Your task to perform on an android device: Searchfor good French restaurants Image 0: 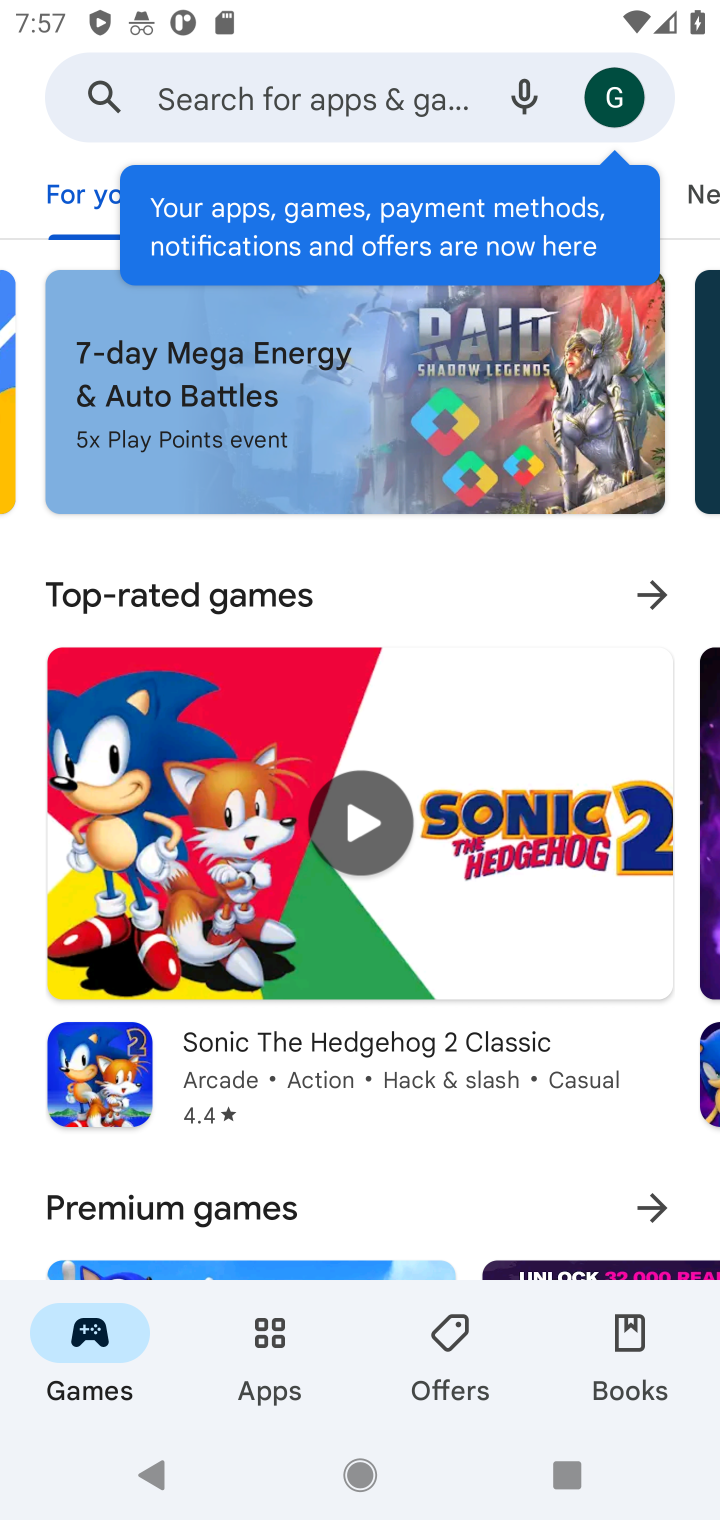
Step 0: press home button
Your task to perform on an android device: Searchfor good French restaurants Image 1: 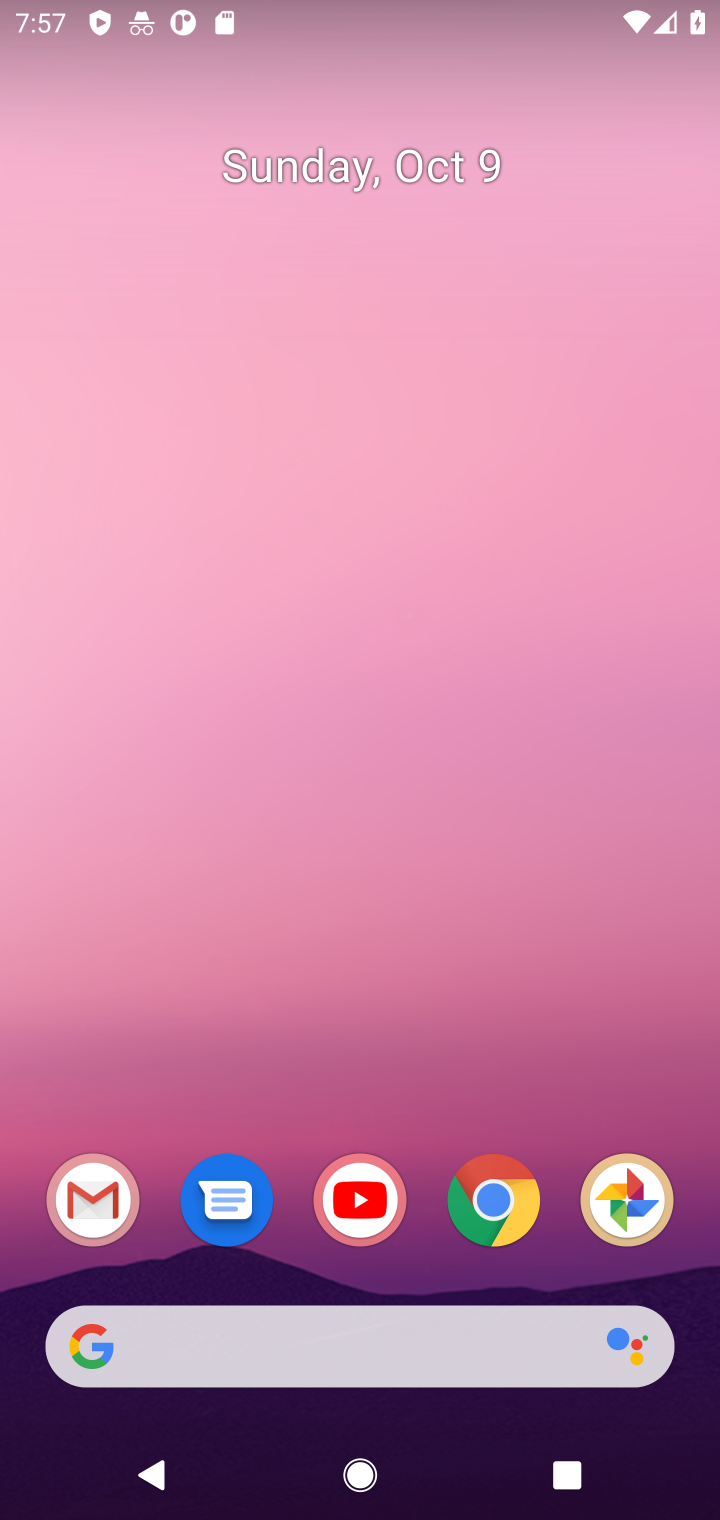
Step 1: click (508, 1200)
Your task to perform on an android device: Searchfor good French restaurants Image 2: 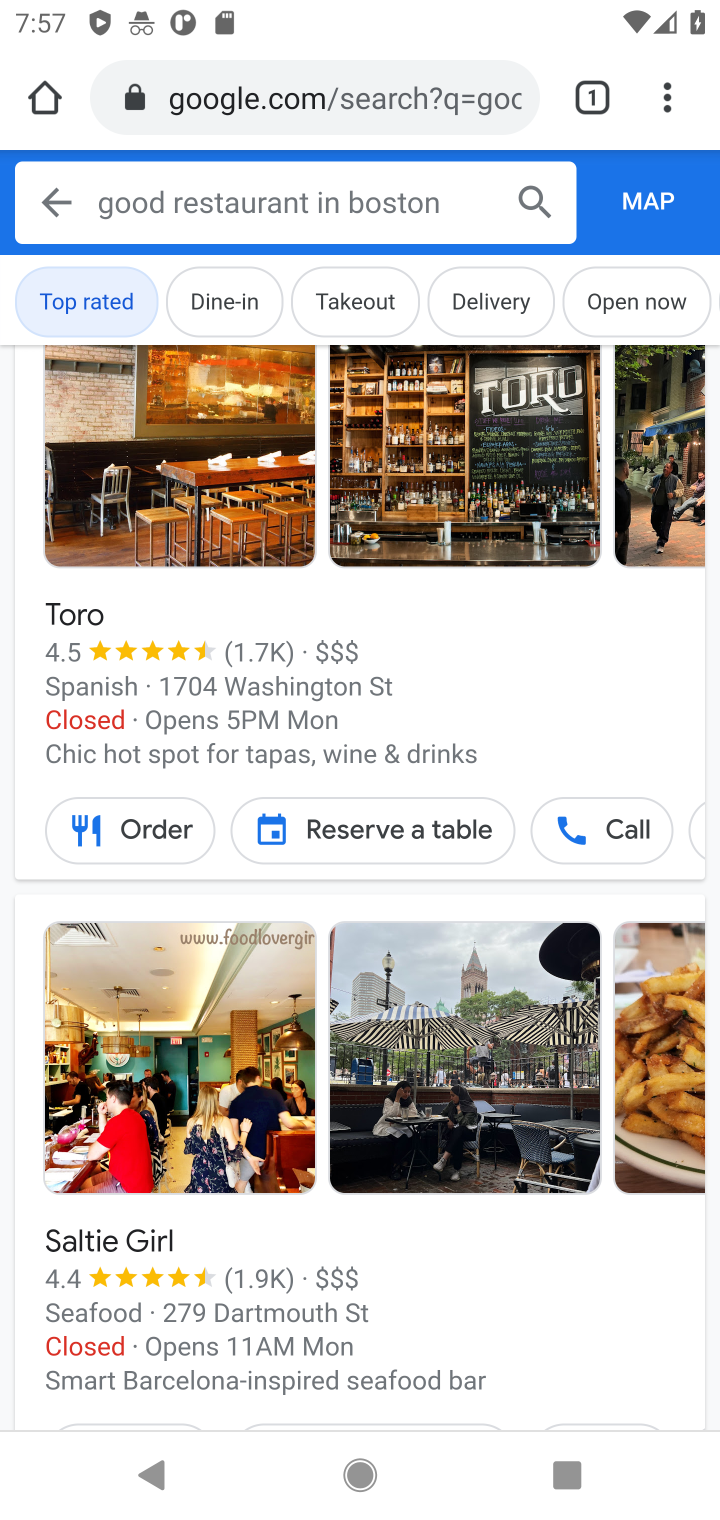
Step 2: drag from (666, 986) to (613, 528)
Your task to perform on an android device: Searchfor good French restaurants Image 3: 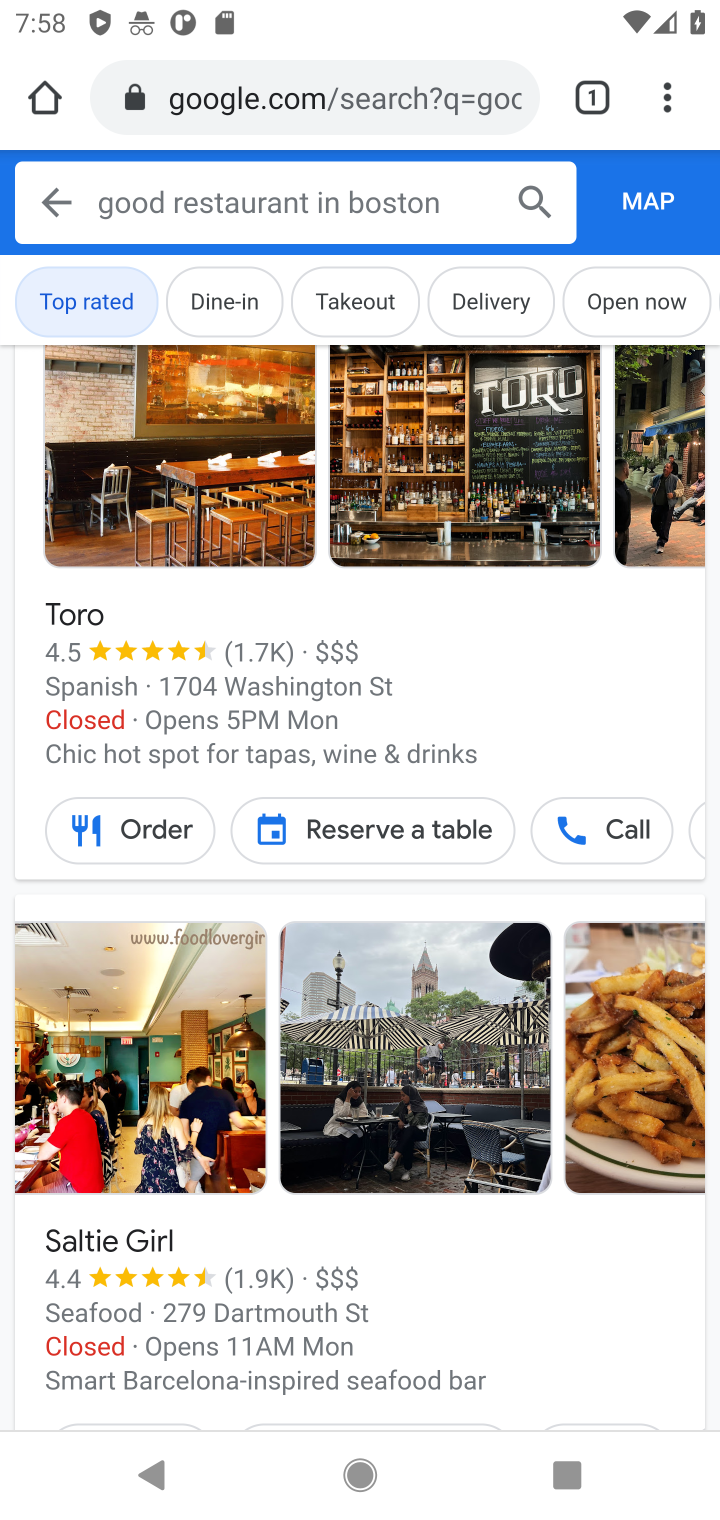
Step 3: click (288, 101)
Your task to perform on an android device: Searchfor good French restaurants Image 4: 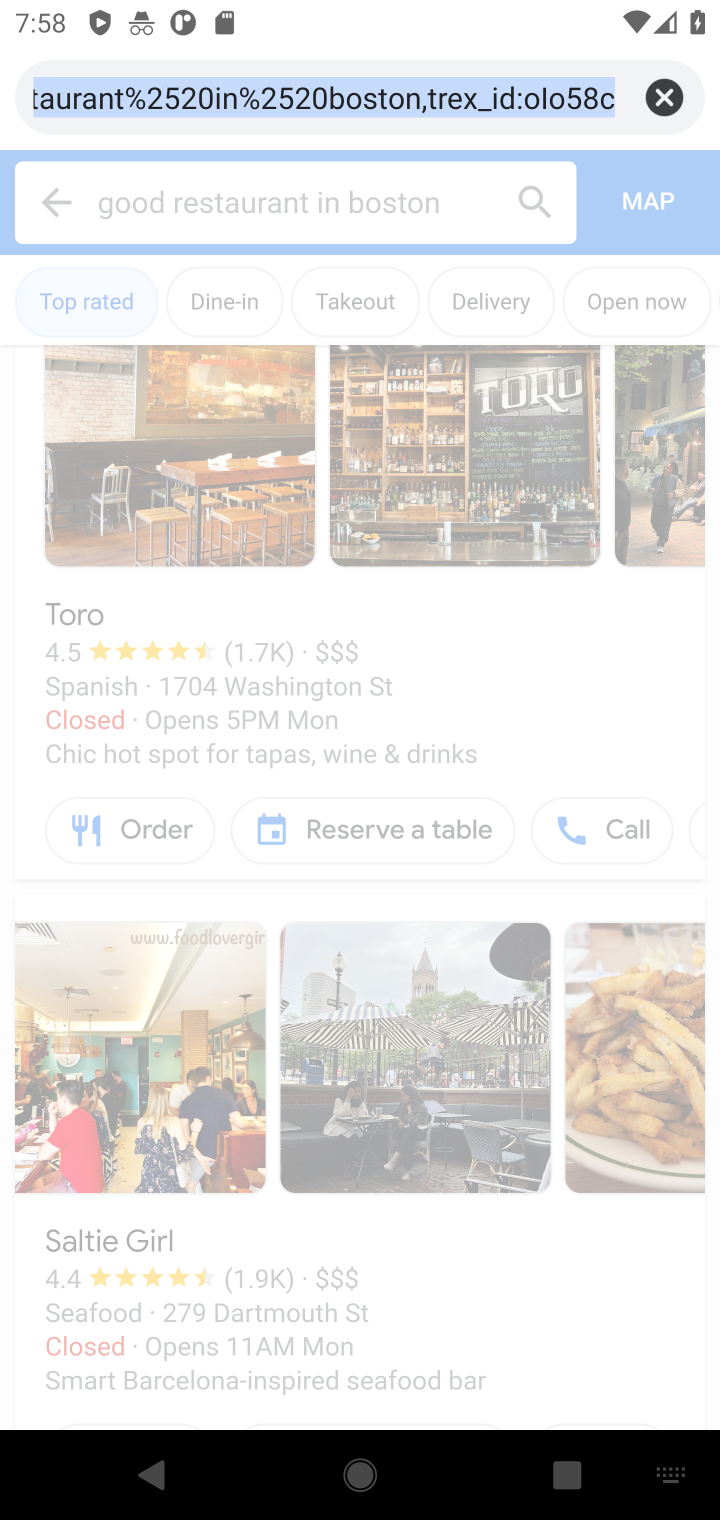
Step 4: type "good French restaurants"
Your task to perform on an android device: Searchfor good French restaurants Image 5: 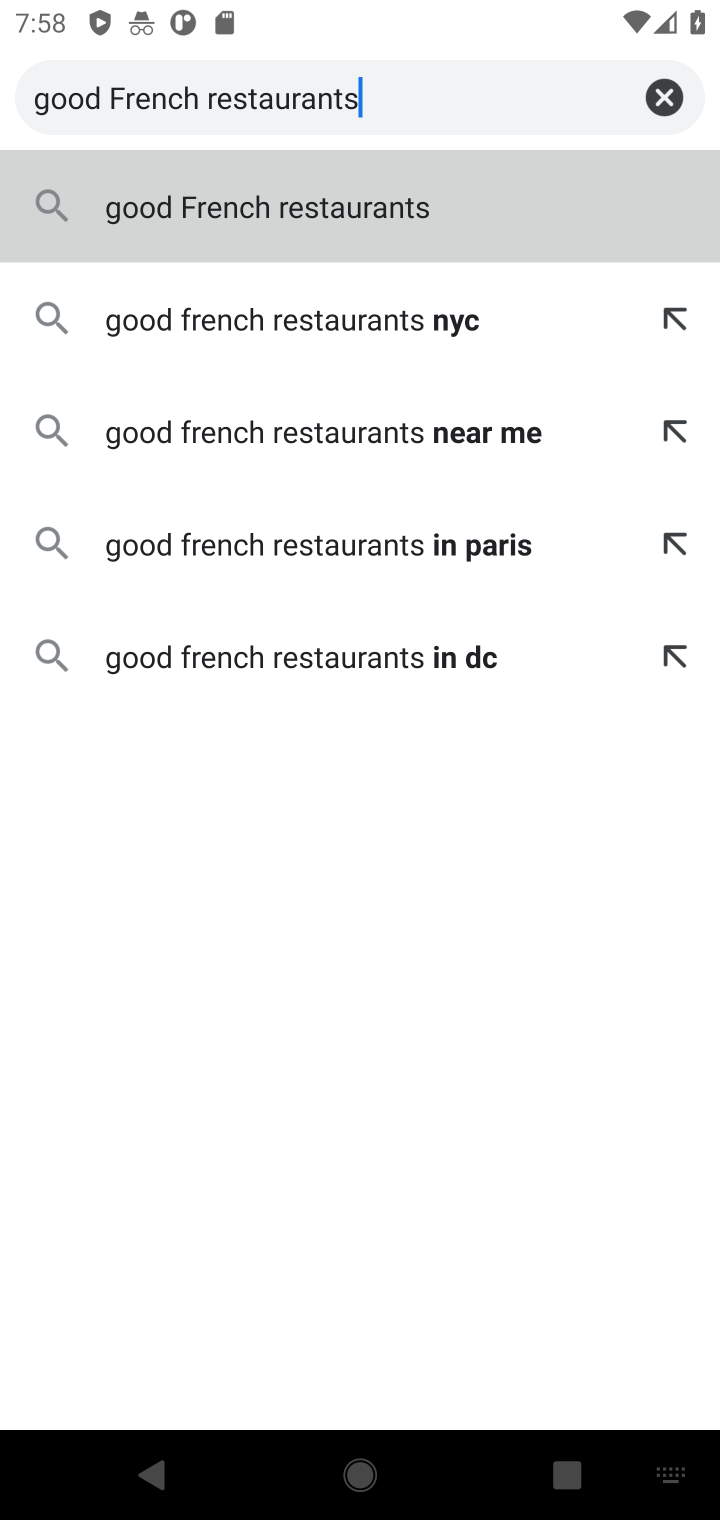
Step 5: click (419, 193)
Your task to perform on an android device: Searchfor good French restaurants Image 6: 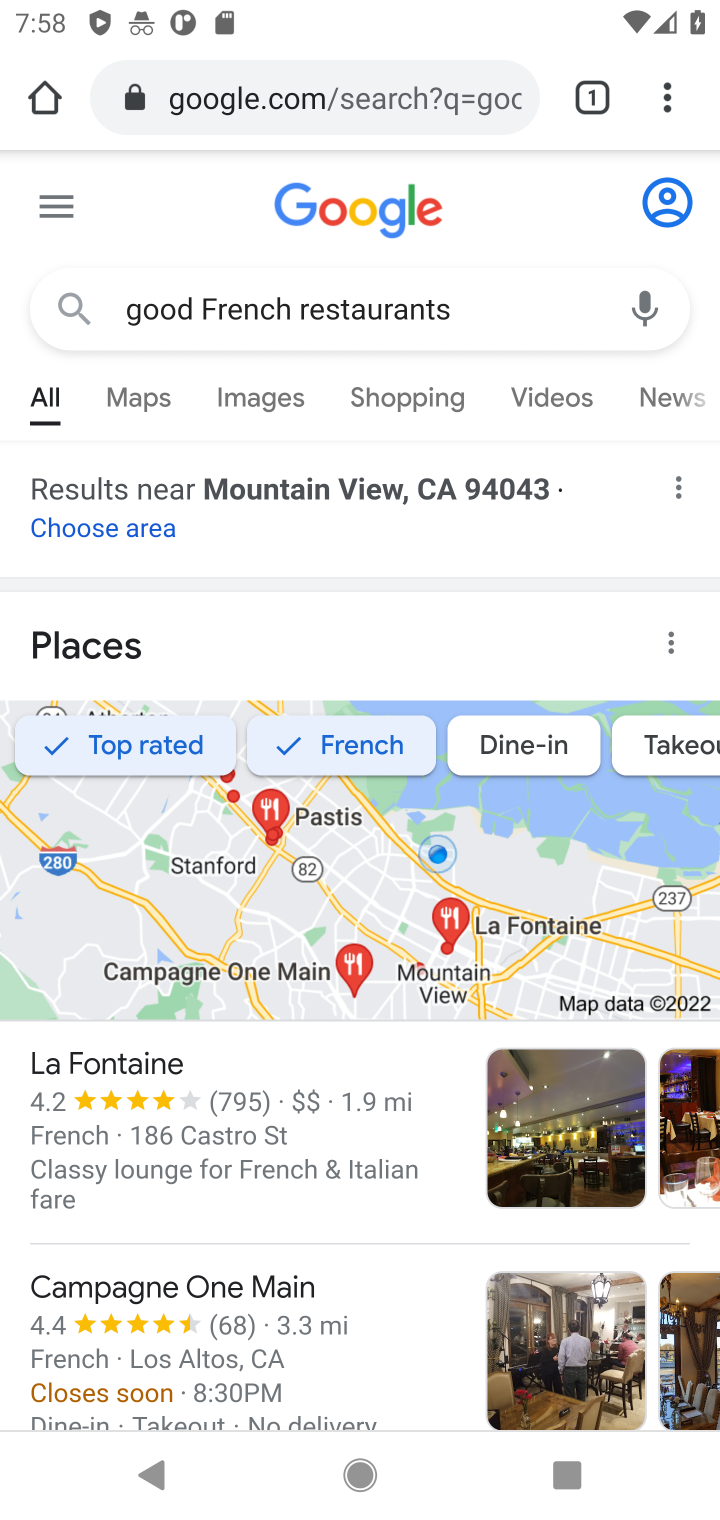
Step 6: drag from (274, 1164) to (273, 726)
Your task to perform on an android device: Searchfor good French restaurants Image 7: 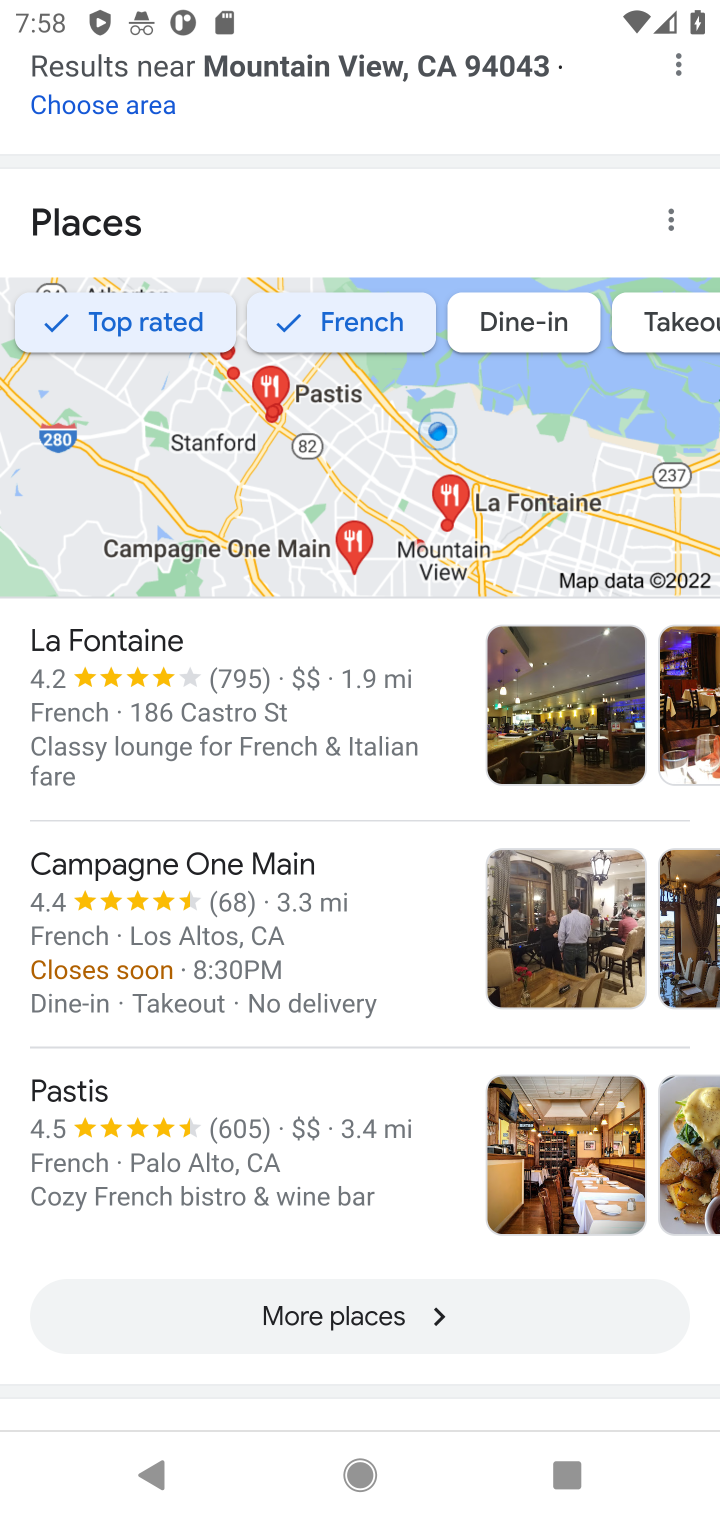
Step 7: click (365, 1326)
Your task to perform on an android device: Searchfor good French restaurants Image 8: 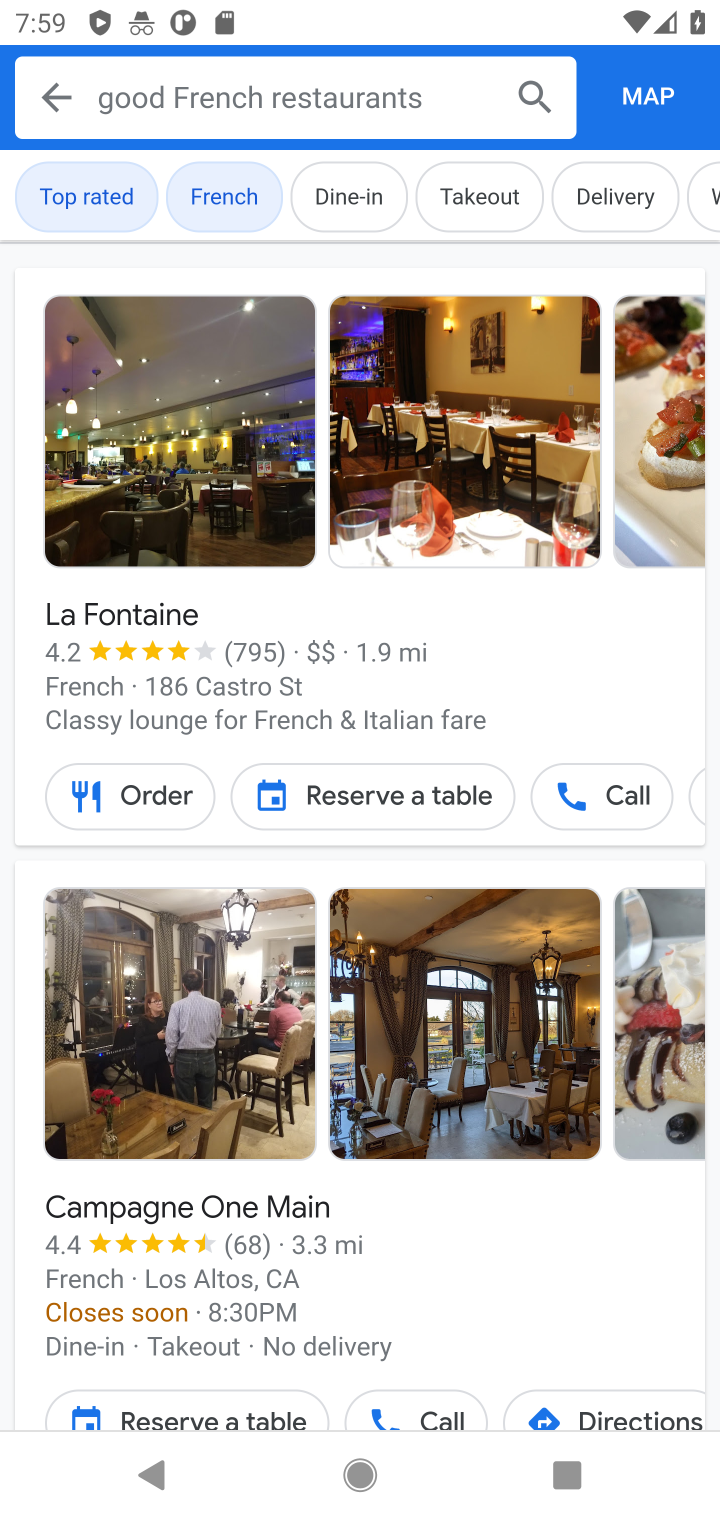
Step 8: task complete